Your task to perform on an android device: Add sony triple a to the cart on bestbuy, then select checkout. Image 0: 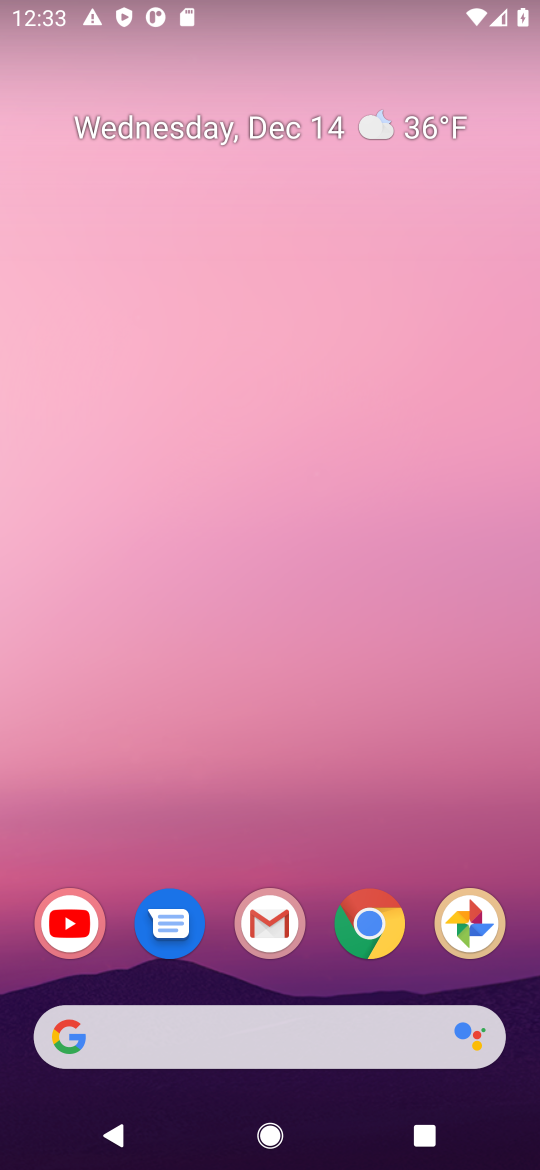
Step 0: click (189, 1037)
Your task to perform on an android device: Add sony triple a to the cart on bestbuy, then select checkout. Image 1: 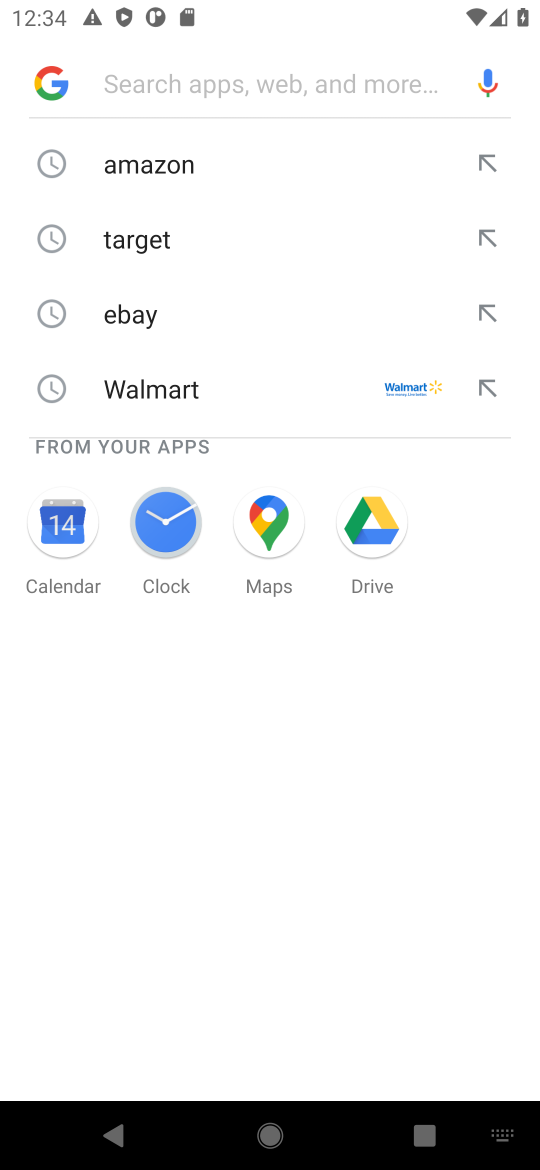
Step 1: type "bestbuy"
Your task to perform on an android device: Add sony triple a to the cart on bestbuy, then select checkout. Image 2: 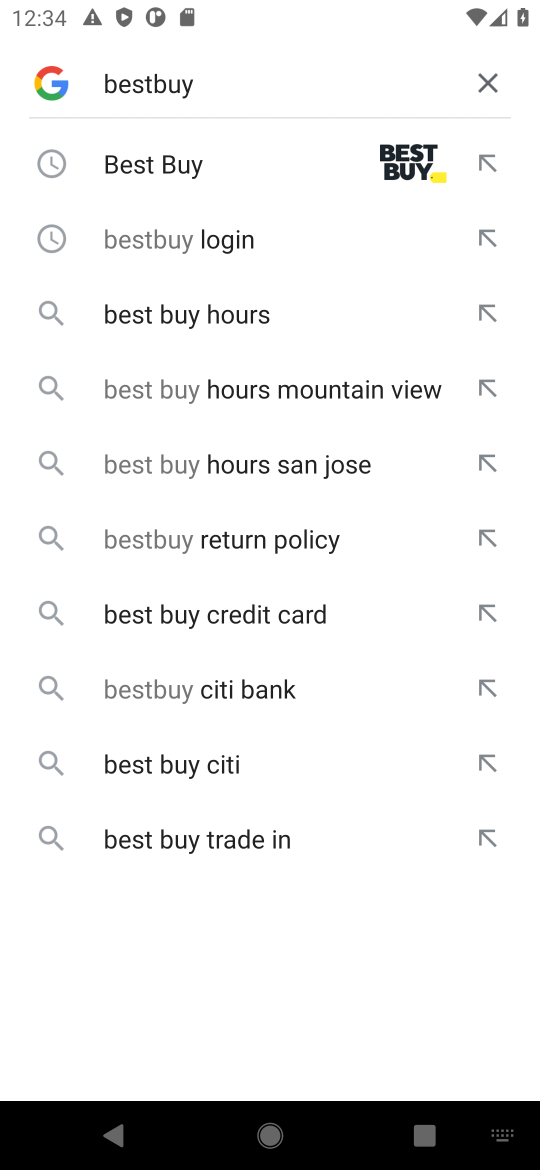
Step 2: click (189, 156)
Your task to perform on an android device: Add sony triple a to the cart on bestbuy, then select checkout. Image 3: 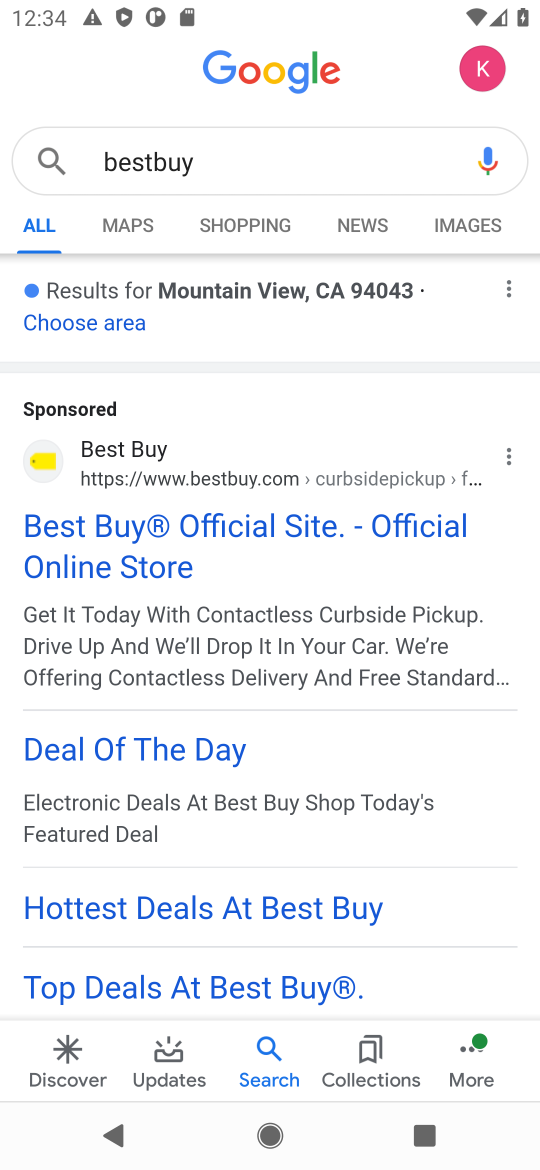
Step 3: click (190, 523)
Your task to perform on an android device: Add sony triple a to the cart on bestbuy, then select checkout. Image 4: 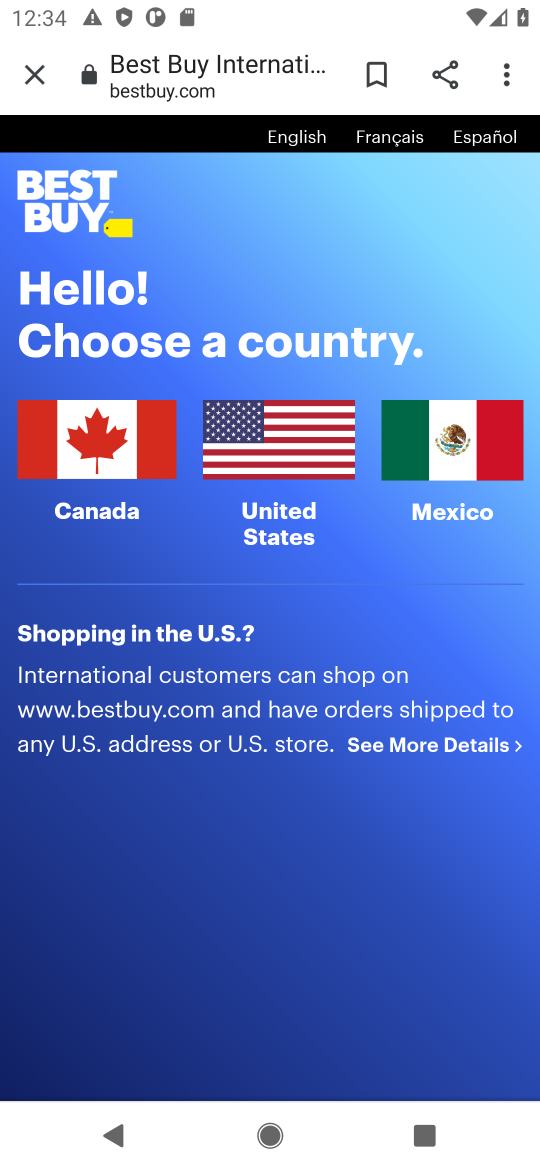
Step 4: click (71, 444)
Your task to perform on an android device: Add sony triple a to the cart on bestbuy, then select checkout. Image 5: 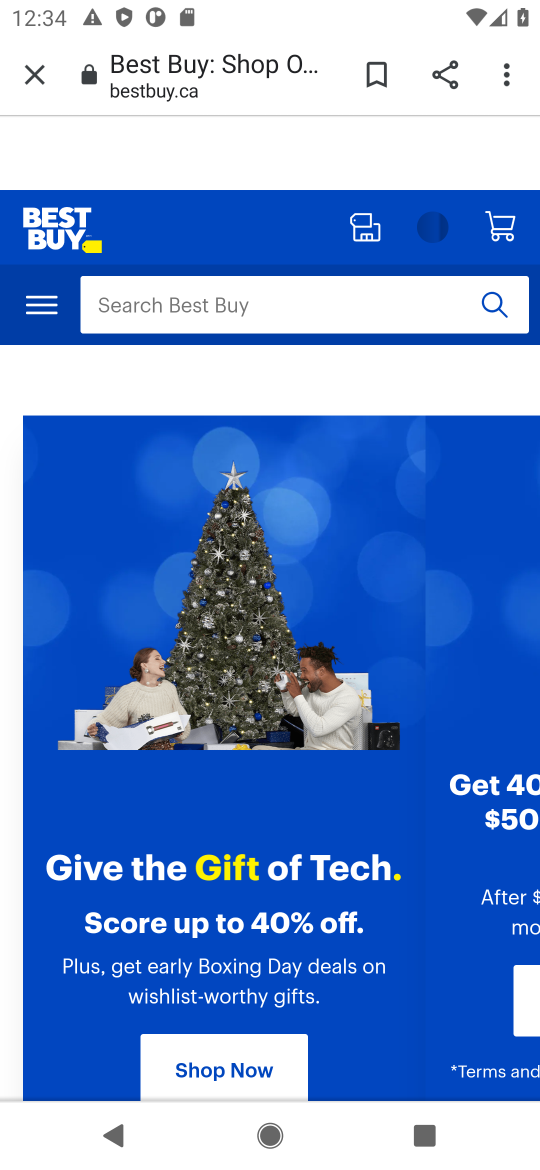
Step 5: click (191, 319)
Your task to perform on an android device: Add sony triple a to the cart on bestbuy, then select checkout. Image 6: 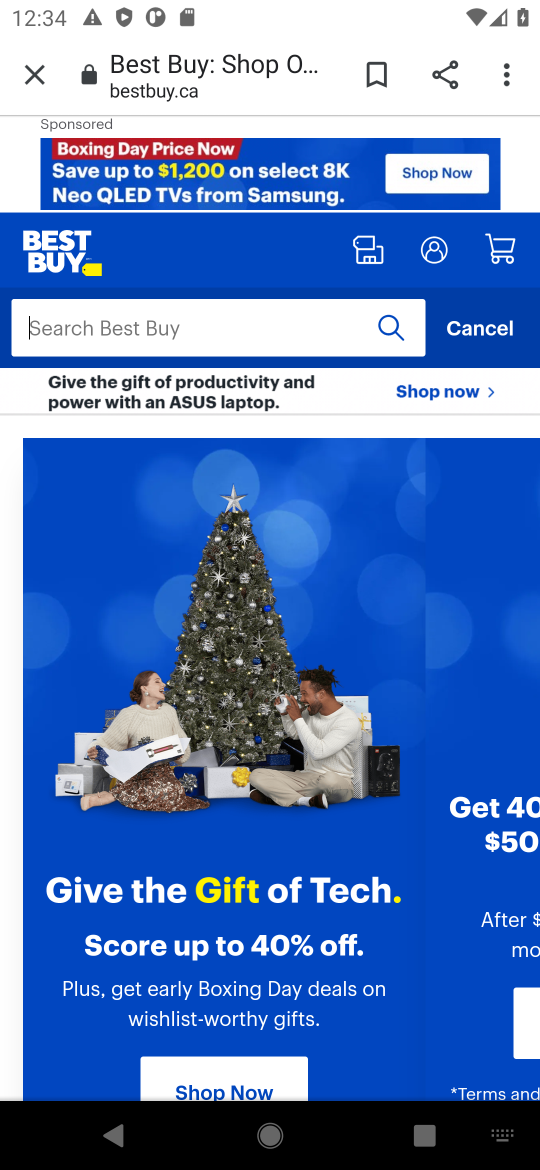
Step 6: type "sony triple a"
Your task to perform on an android device: Add sony triple a to the cart on bestbuy, then select checkout. Image 7: 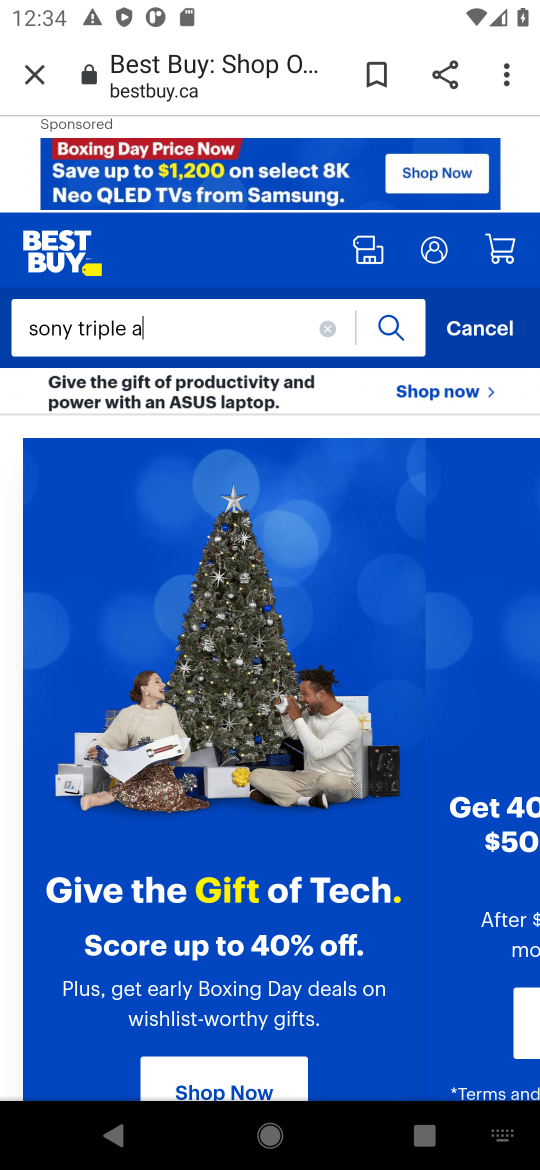
Step 7: click (371, 338)
Your task to perform on an android device: Add sony triple a to the cart on bestbuy, then select checkout. Image 8: 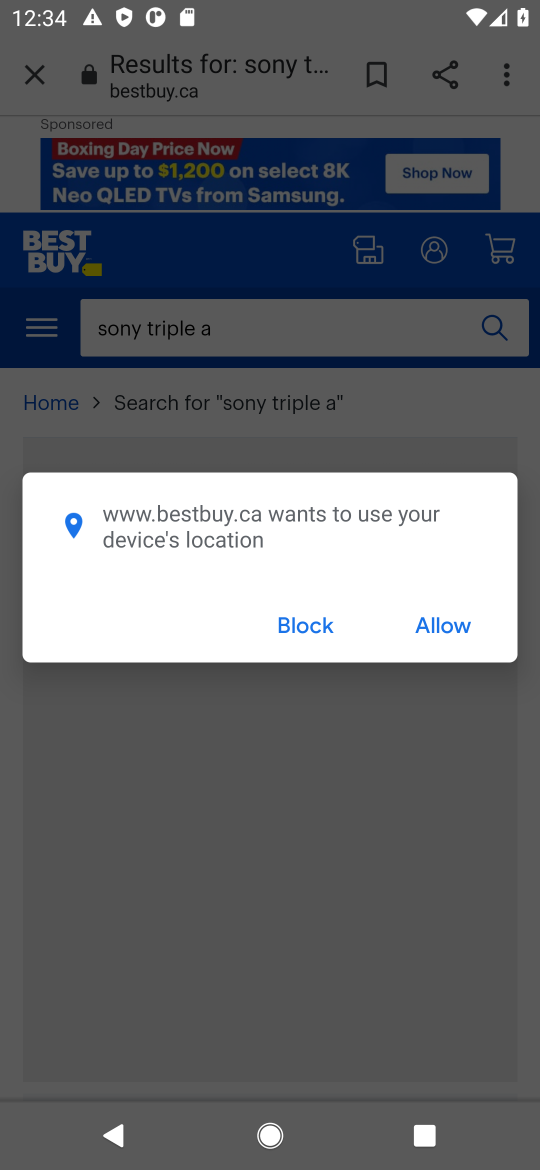
Step 8: click (467, 627)
Your task to perform on an android device: Add sony triple a to the cart on bestbuy, then select checkout. Image 9: 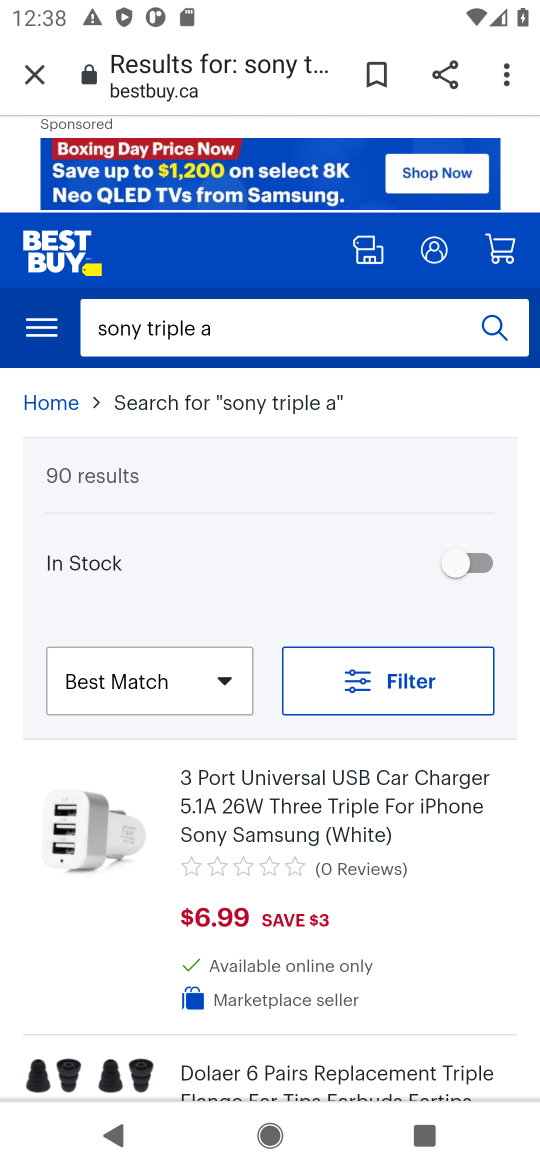
Step 9: task complete